Your task to perform on an android device: Open privacy settings Image 0: 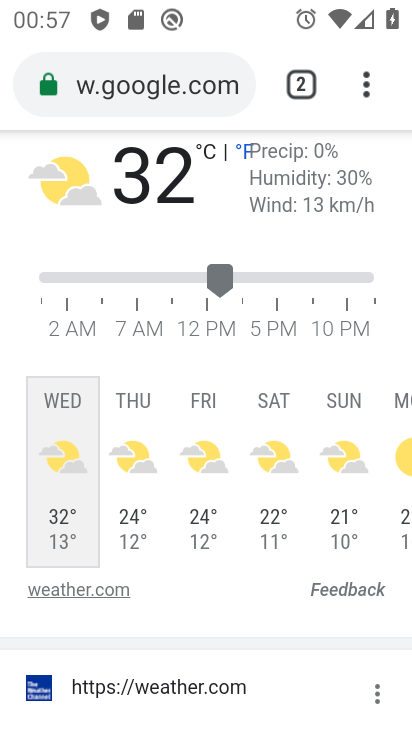
Step 0: press home button
Your task to perform on an android device: Open privacy settings Image 1: 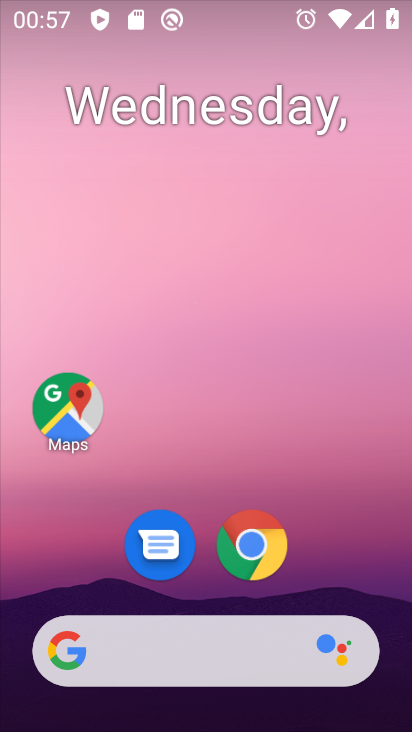
Step 1: drag from (204, 319) to (261, 27)
Your task to perform on an android device: Open privacy settings Image 2: 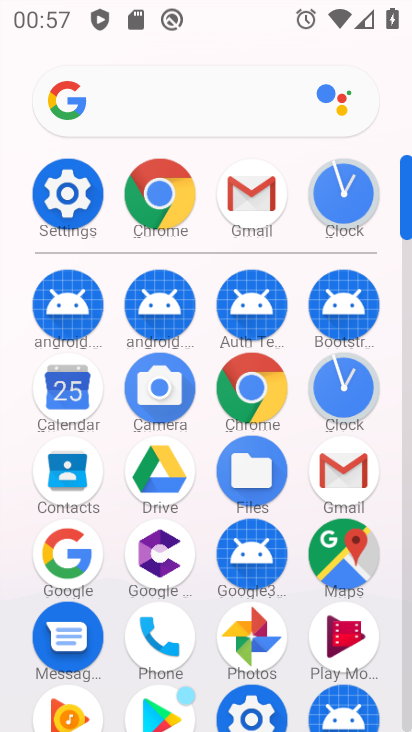
Step 2: click (52, 188)
Your task to perform on an android device: Open privacy settings Image 3: 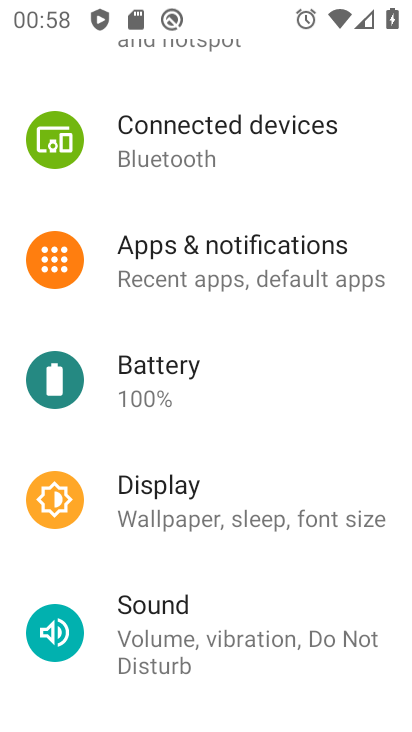
Step 3: drag from (282, 582) to (276, 141)
Your task to perform on an android device: Open privacy settings Image 4: 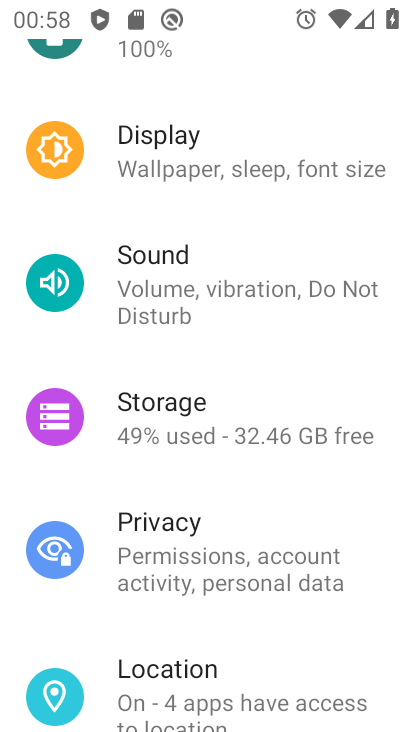
Step 4: click (214, 541)
Your task to perform on an android device: Open privacy settings Image 5: 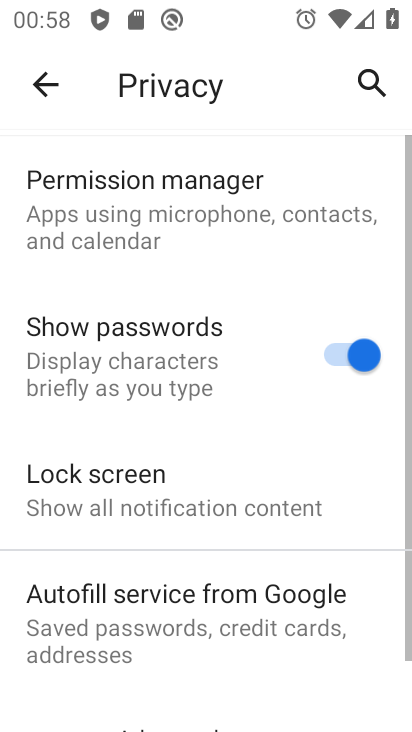
Step 5: task complete